Your task to perform on an android device: Check the weather Image 0: 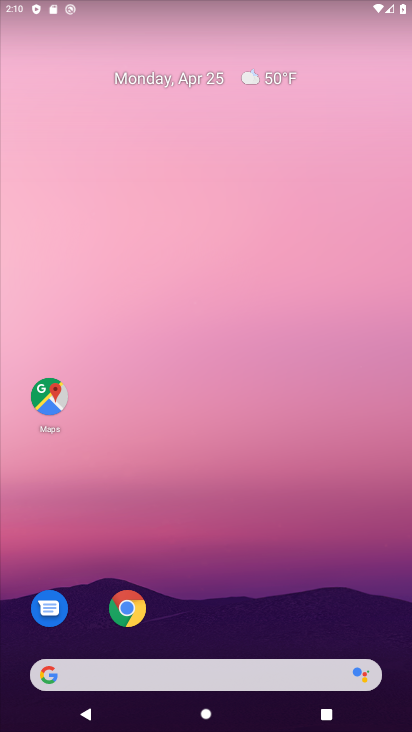
Step 0: drag from (201, 642) to (180, 172)
Your task to perform on an android device: Check the weather Image 1: 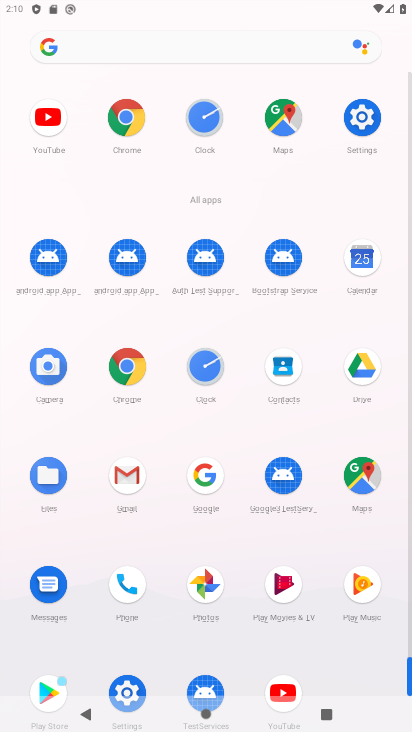
Step 1: click (211, 481)
Your task to perform on an android device: Check the weather Image 2: 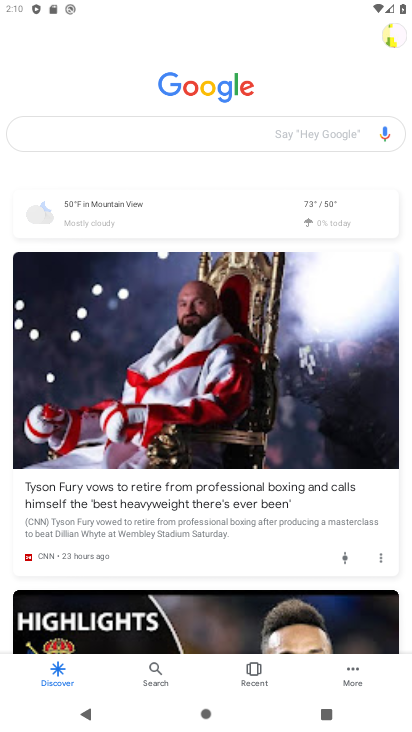
Step 2: click (118, 213)
Your task to perform on an android device: Check the weather Image 3: 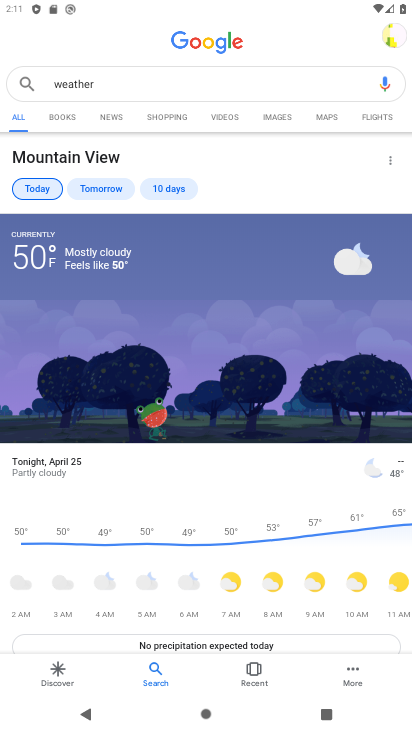
Step 3: task complete